Your task to perform on an android device: Go to Android settings Image 0: 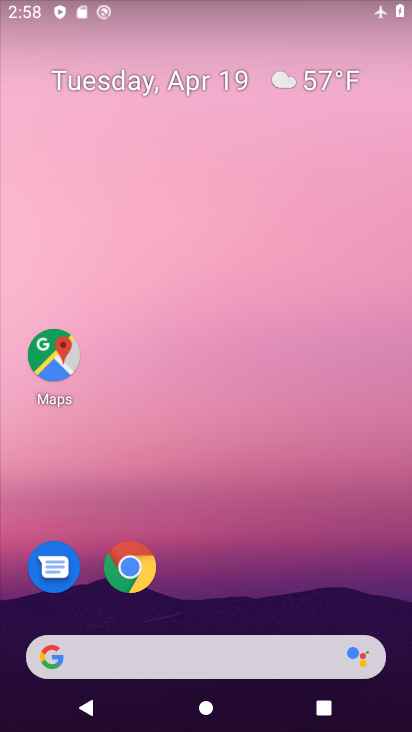
Step 0: drag from (362, 599) to (360, 192)
Your task to perform on an android device: Go to Android settings Image 1: 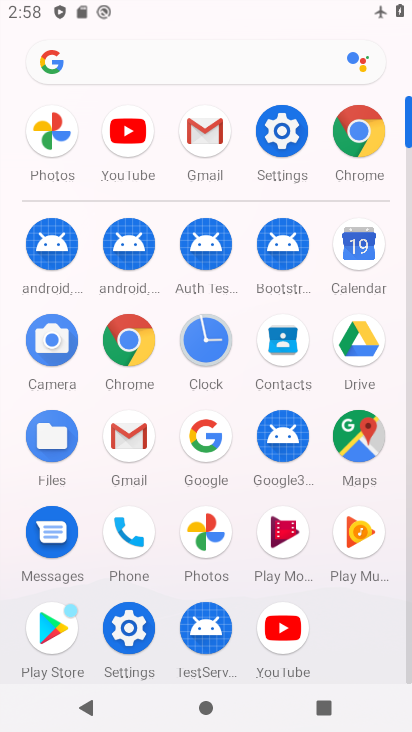
Step 1: click (278, 135)
Your task to perform on an android device: Go to Android settings Image 2: 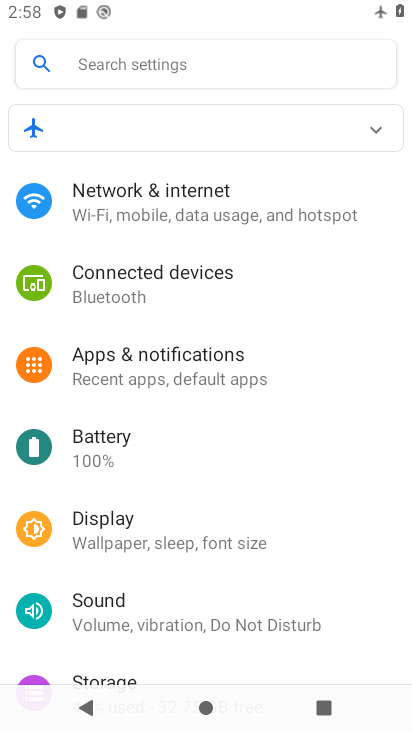
Step 2: drag from (328, 574) to (319, 352)
Your task to perform on an android device: Go to Android settings Image 3: 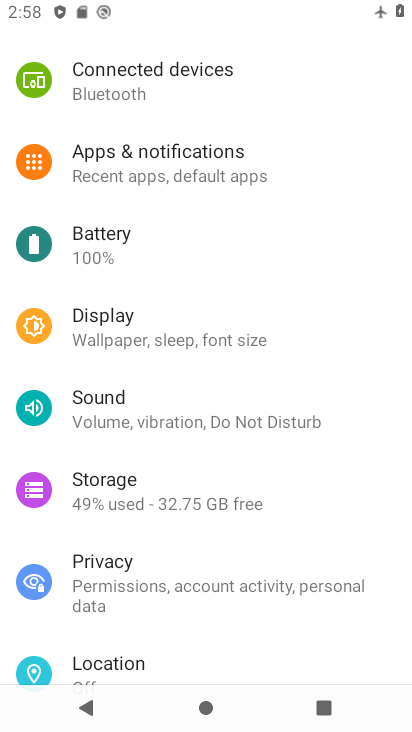
Step 3: drag from (354, 614) to (359, 438)
Your task to perform on an android device: Go to Android settings Image 4: 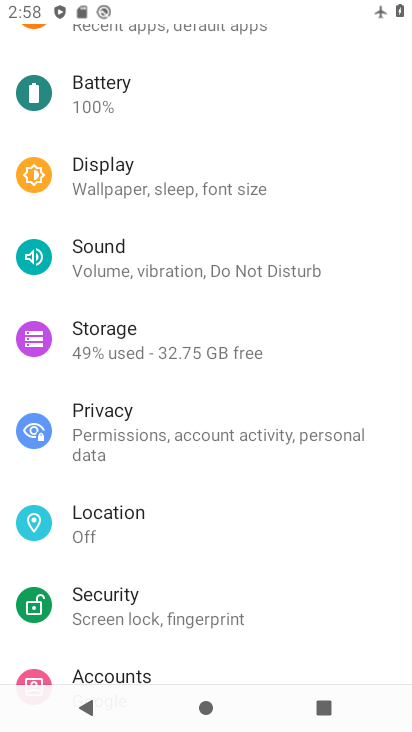
Step 4: drag from (360, 570) to (338, 362)
Your task to perform on an android device: Go to Android settings Image 5: 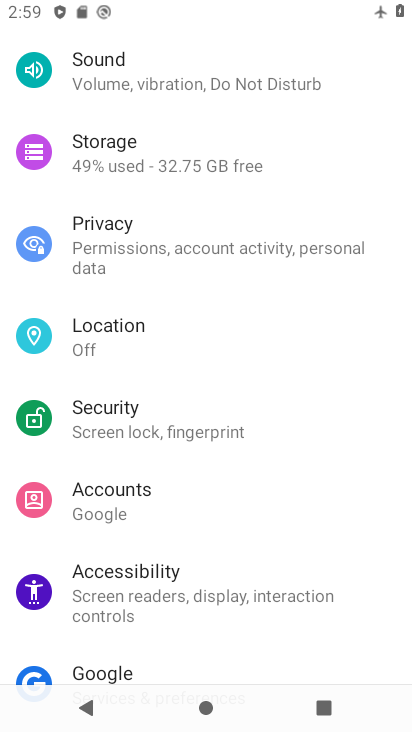
Step 5: drag from (292, 517) to (292, 306)
Your task to perform on an android device: Go to Android settings Image 6: 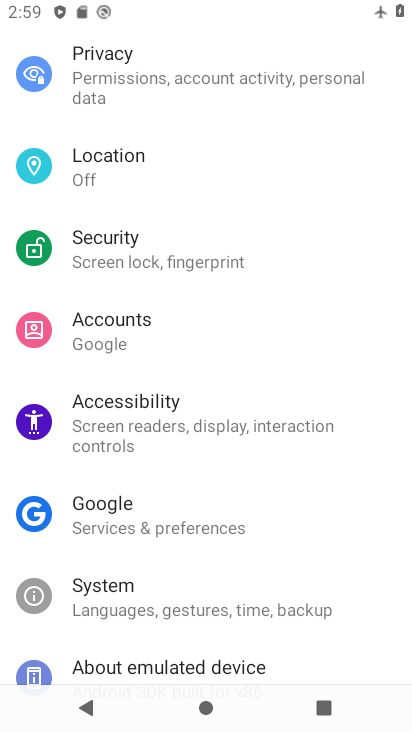
Step 6: drag from (282, 536) to (278, 362)
Your task to perform on an android device: Go to Android settings Image 7: 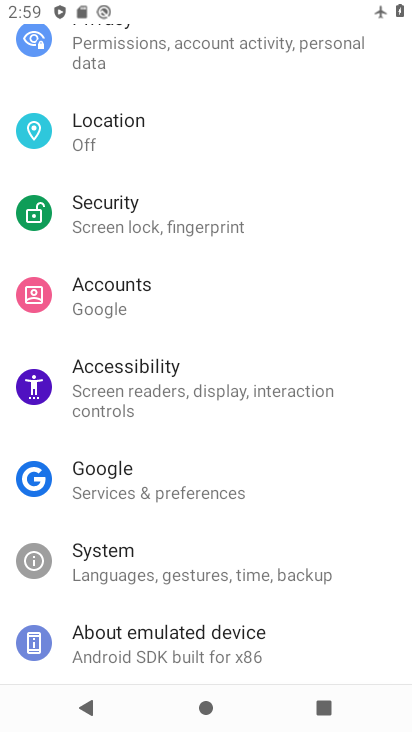
Step 7: click (176, 580)
Your task to perform on an android device: Go to Android settings Image 8: 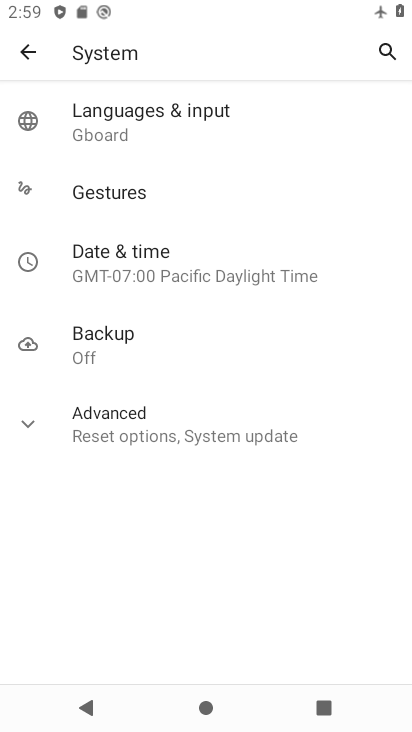
Step 8: click (183, 431)
Your task to perform on an android device: Go to Android settings Image 9: 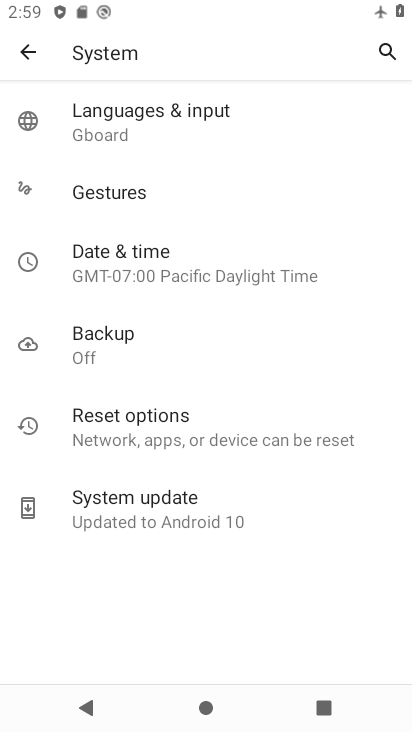
Step 9: click (160, 510)
Your task to perform on an android device: Go to Android settings Image 10: 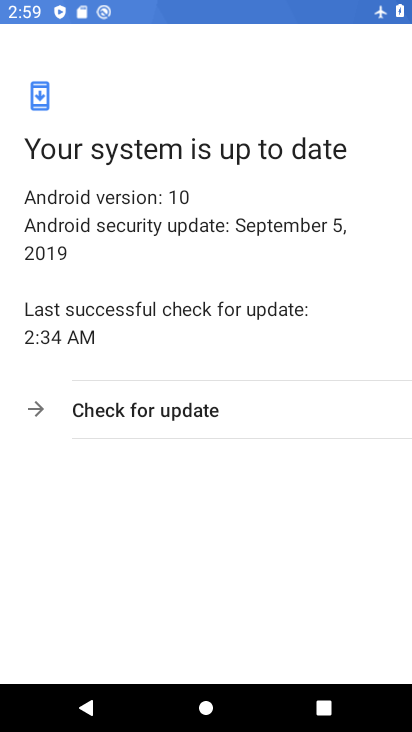
Step 10: task complete